Your task to perform on an android device: Clear the cart on walmart. Search for logitech g pro on walmart, select the first entry, add it to the cart, then select checkout. Image 0: 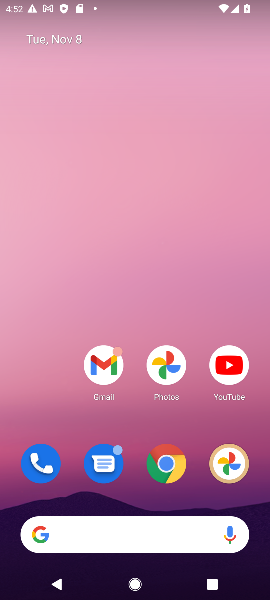
Step 0: click (173, 459)
Your task to perform on an android device: Clear the cart on walmart. Search for logitech g pro on walmart, select the first entry, add it to the cart, then select checkout. Image 1: 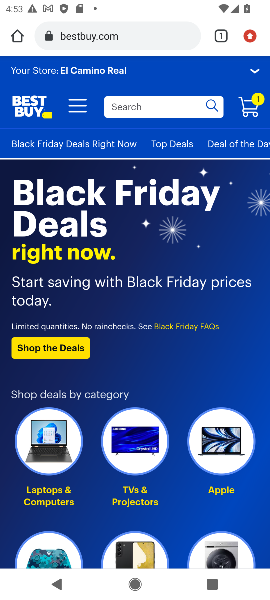
Step 1: click (124, 31)
Your task to perform on an android device: Clear the cart on walmart. Search for logitech g pro on walmart, select the first entry, add it to the cart, then select checkout. Image 2: 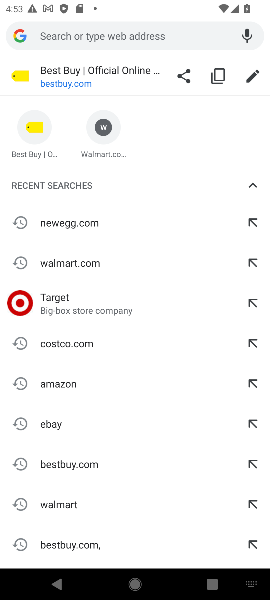
Step 2: click (77, 505)
Your task to perform on an android device: Clear the cart on walmart. Search for logitech g pro on walmart, select the first entry, add it to the cart, then select checkout. Image 3: 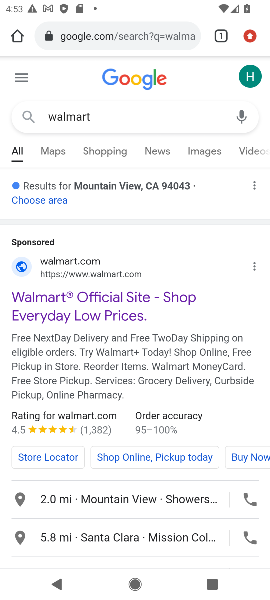
Step 3: click (79, 290)
Your task to perform on an android device: Clear the cart on walmart. Search for logitech g pro on walmart, select the first entry, add it to the cart, then select checkout. Image 4: 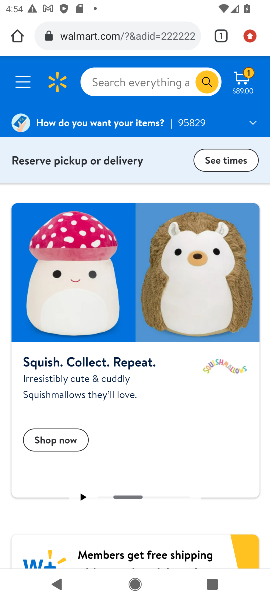
Step 4: click (236, 81)
Your task to perform on an android device: Clear the cart on walmart. Search for logitech g pro on walmart, select the first entry, add it to the cart, then select checkout. Image 5: 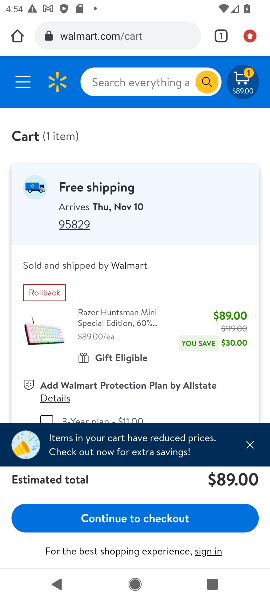
Step 5: click (236, 81)
Your task to perform on an android device: Clear the cart on walmart. Search for logitech g pro on walmart, select the first entry, add it to the cart, then select checkout. Image 6: 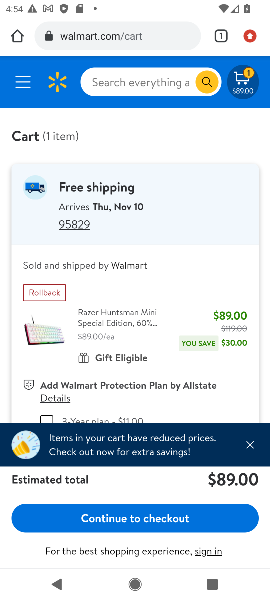
Step 6: drag from (100, 394) to (112, 179)
Your task to perform on an android device: Clear the cart on walmart. Search for logitech g pro on walmart, select the first entry, add it to the cart, then select checkout. Image 7: 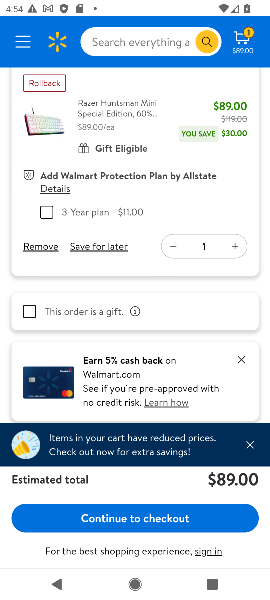
Step 7: click (34, 242)
Your task to perform on an android device: Clear the cart on walmart. Search for logitech g pro on walmart, select the first entry, add it to the cart, then select checkout. Image 8: 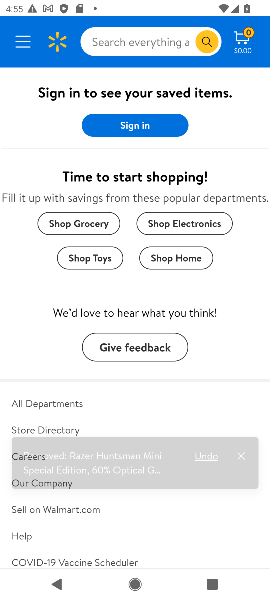
Step 8: click (148, 49)
Your task to perform on an android device: Clear the cart on walmart. Search for logitech g pro on walmart, select the first entry, add it to the cart, then select checkout. Image 9: 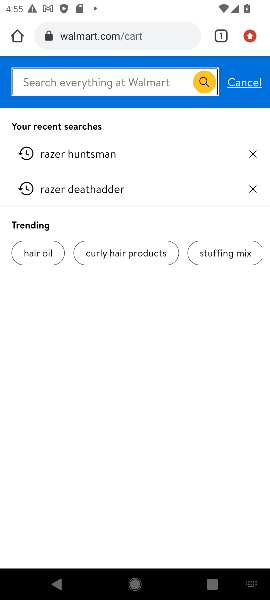
Step 9: type "logitech g pro"
Your task to perform on an android device: Clear the cart on walmart. Search for logitech g pro on walmart, select the first entry, add it to the cart, then select checkout. Image 10: 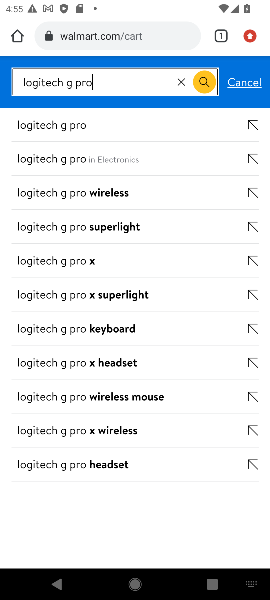
Step 10: click (206, 70)
Your task to perform on an android device: Clear the cart on walmart. Search for logitech g pro on walmart, select the first entry, add it to the cart, then select checkout. Image 11: 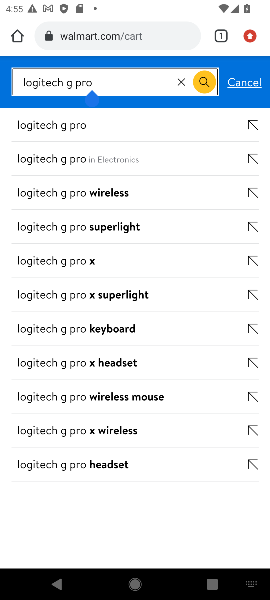
Step 11: click (204, 80)
Your task to perform on an android device: Clear the cart on walmart. Search for logitech g pro on walmart, select the first entry, add it to the cart, then select checkout. Image 12: 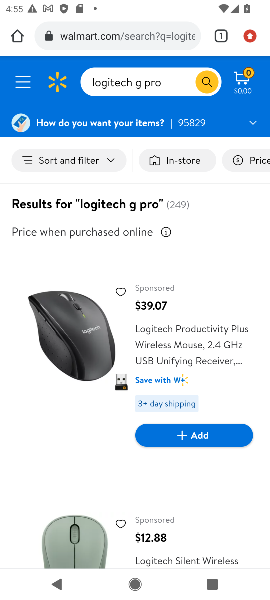
Step 12: task complete